Your task to perform on an android device: Open the web browser Image 0: 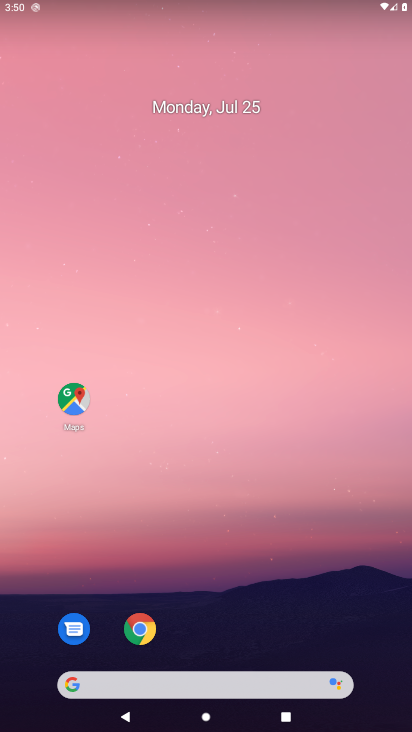
Step 0: drag from (34, 297) to (386, 337)
Your task to perform on an android device: Open the web browser Image 1: 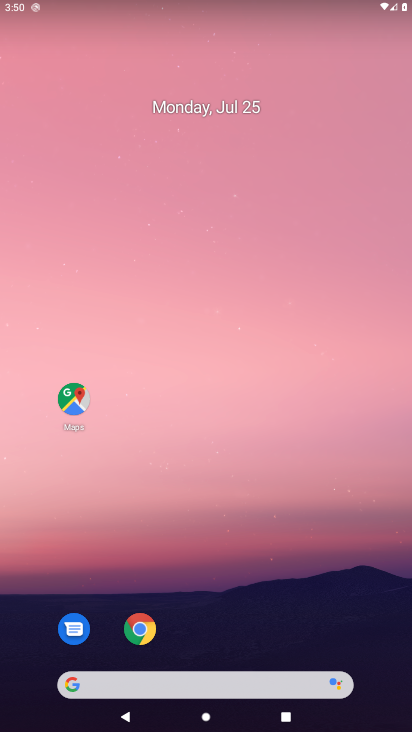
Step 1: task complete